Your task to perform on an android device: Go to notification settings Image 0: 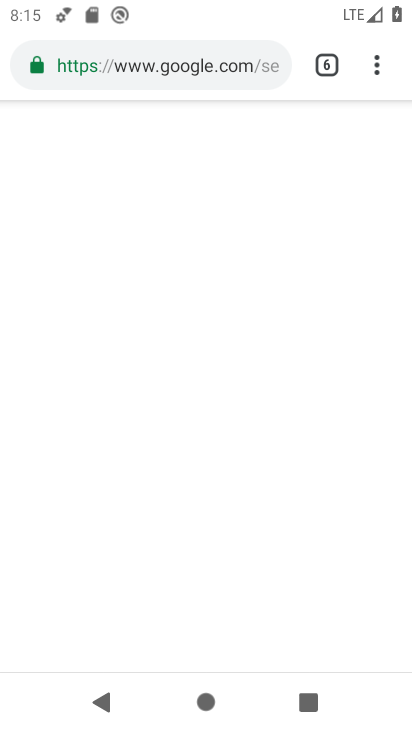
Step 0: press home button
Your task to perform on an android device: Go to notification settings Image 1: 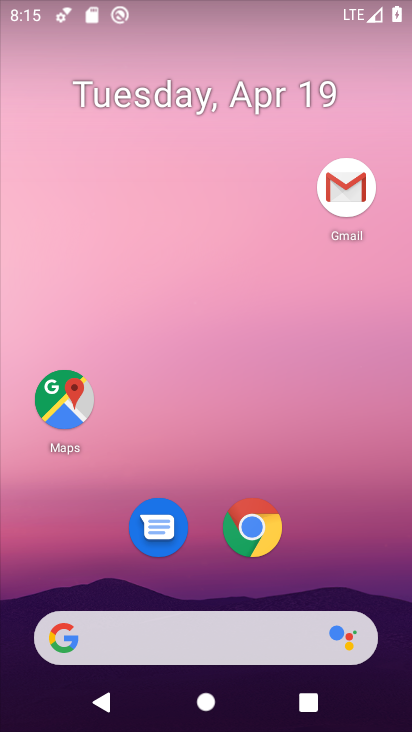
Step 1: drag from (331, 506) to (318, 45)
Your task to perform on an android device: Go to notification settings Image 2: 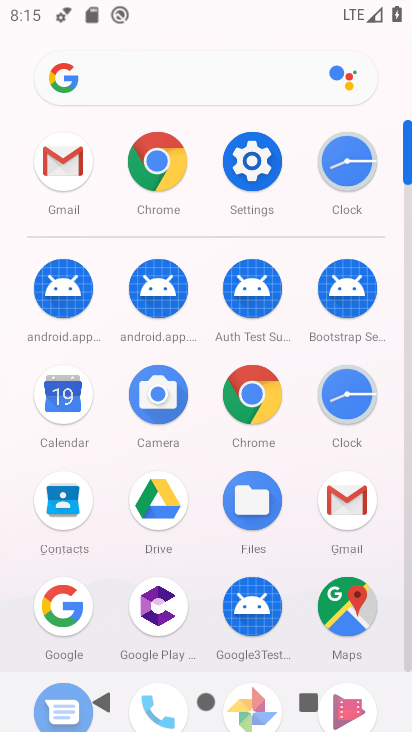
Step 2: click (256, 157)
Your task to perform on an android device: Go to notification settings Image 3: 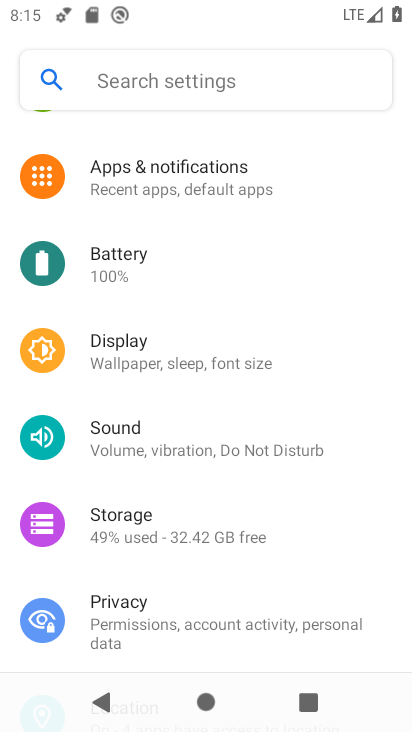
Step 3: click (189, 187)
Your task to perform on an android device: Go to notification settings Image 4: 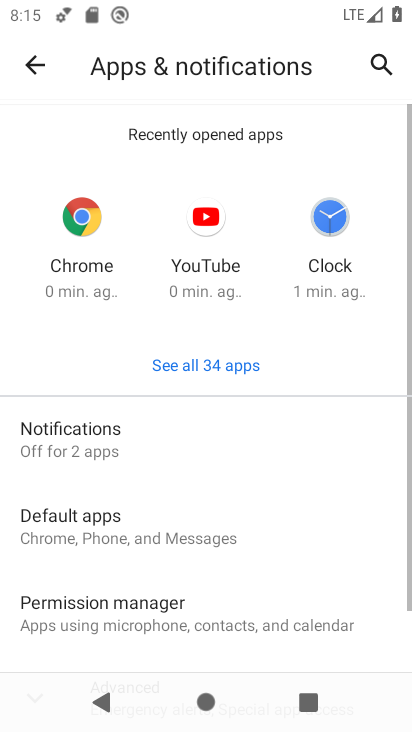
Step 4: click (114, 436)
Your task to perform on an android device: Go to notification settings Image 5: 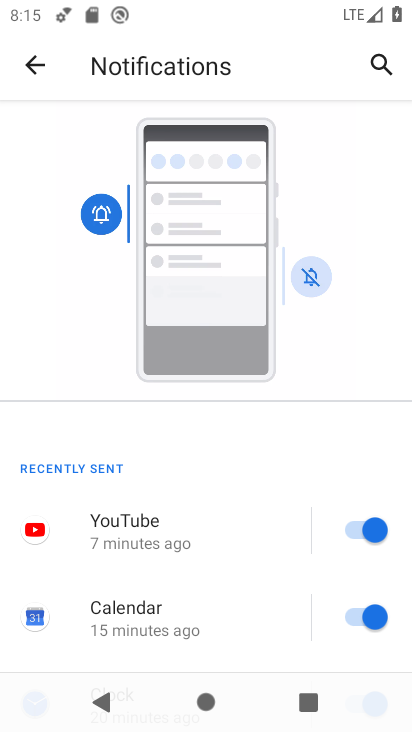
Step 5: task complete